Your task to perform on an android device: open app "Messages" Image 0: 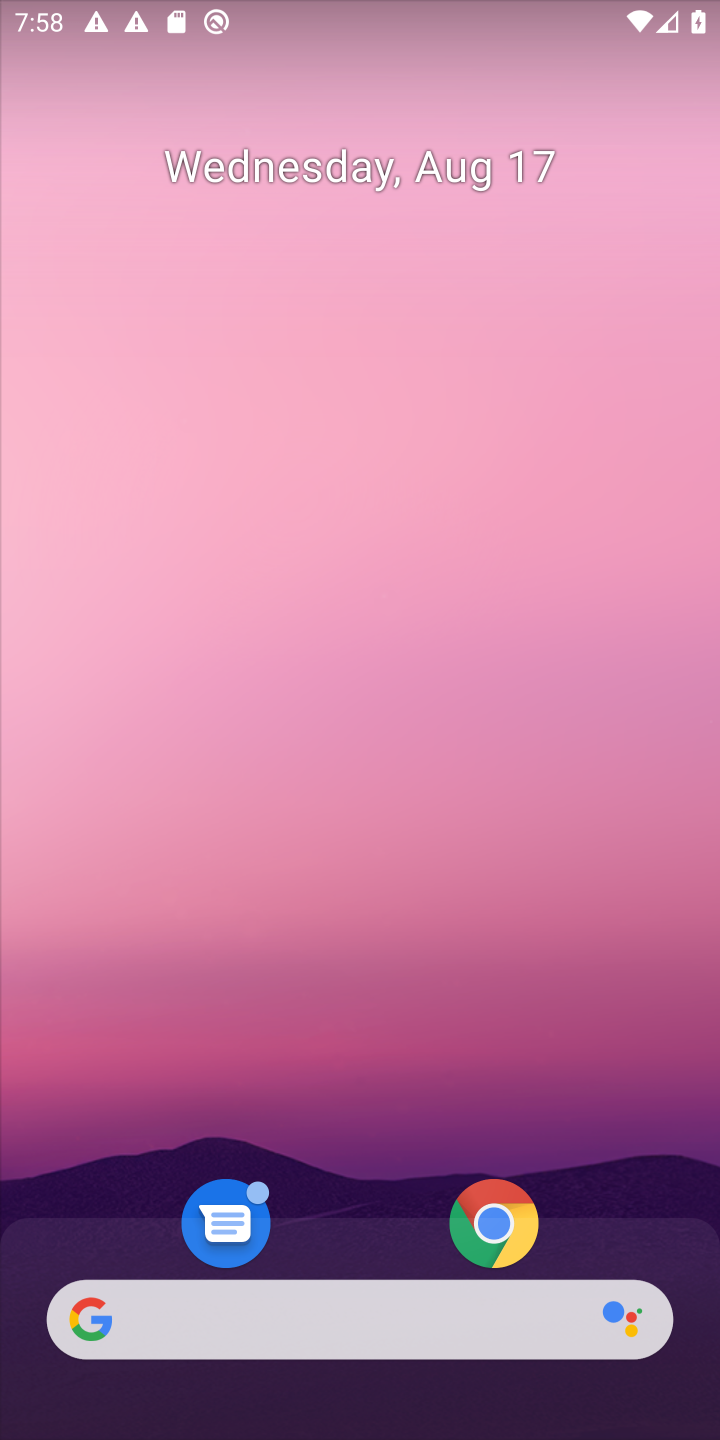
Step 0: click (235, 1212)
Your task to perform on an android device: open app "Messages" Image 1: 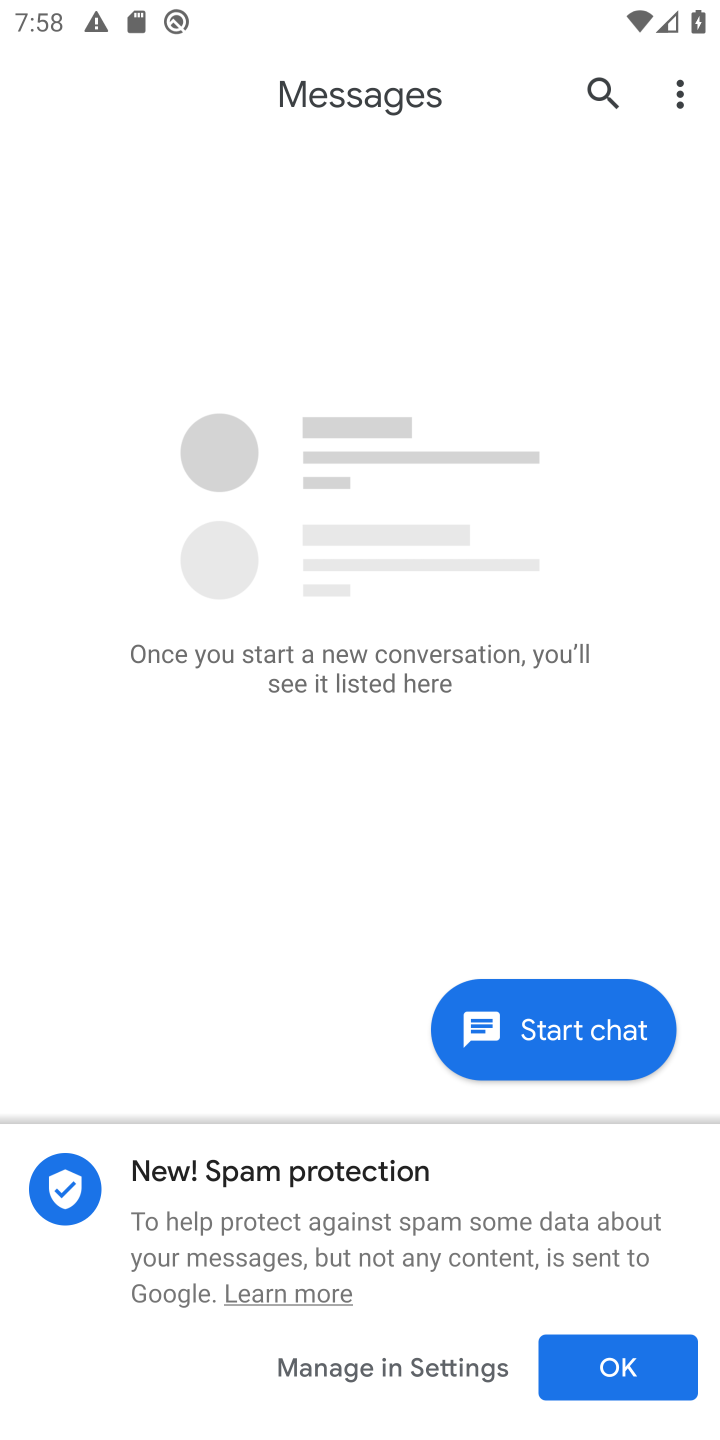
Step 1: task complete